Your task to perform on an android device: turn off sleep mode Image 0: 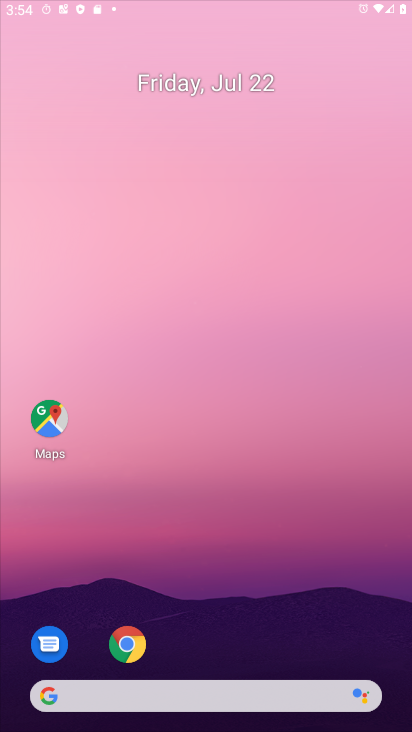
Step 0: press home button
Your task to perform on an android device: turn off sleep mode Image 1: 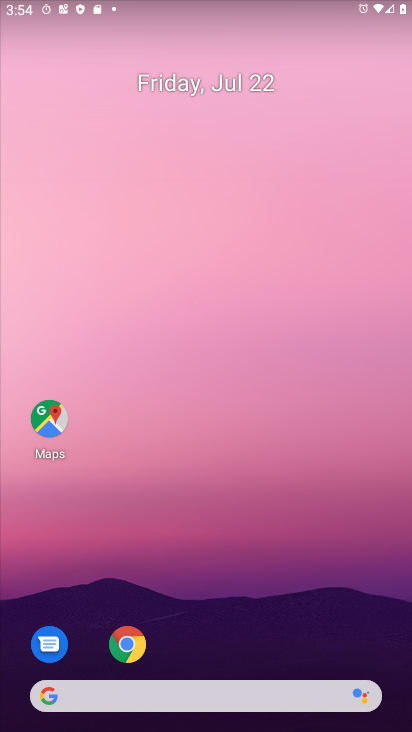
Step 1: drag from (244, 635) to (267, 0)
Your task to perform on an android device: turn off sleep mode Image 2: 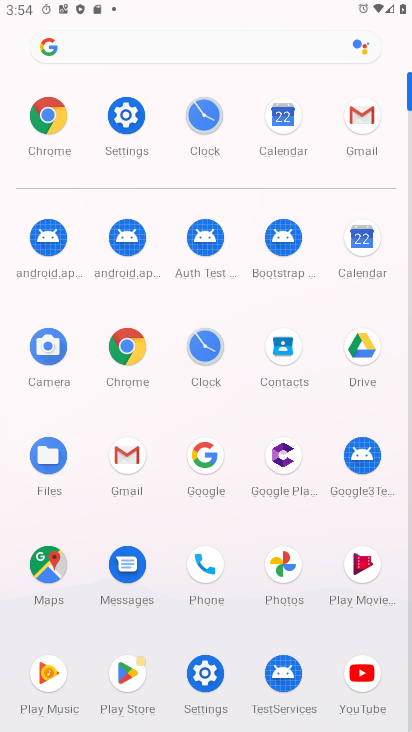
Step 2: click (136, 110)
Your task to perform on an android device: turn off sleep mode Image 3: 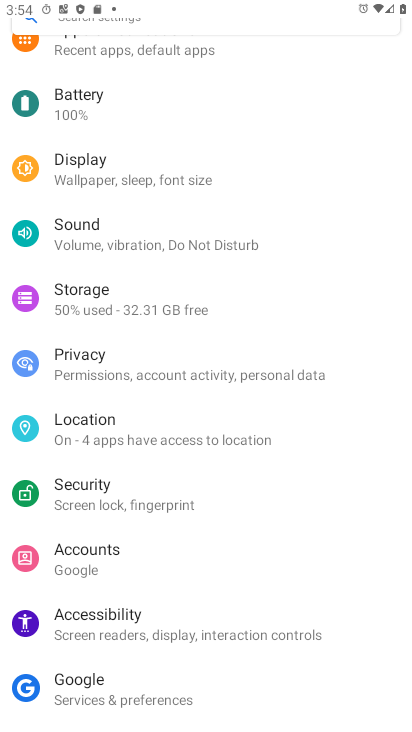
Step 3: click (79, 167)
Your task to perform on an android device: turn off sleep mode Image 4: 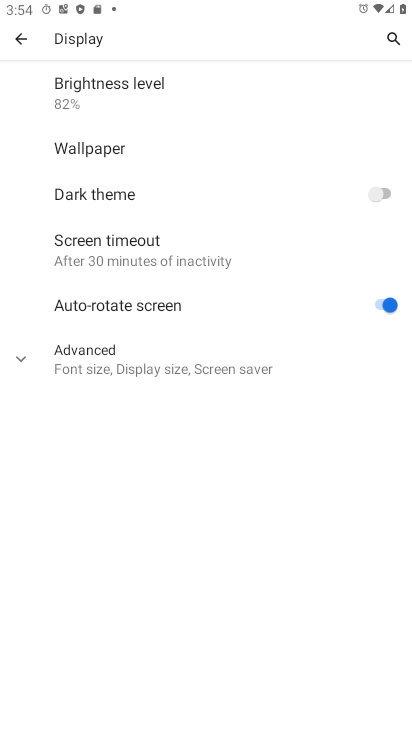
Step 4: task complete